Your task to perform on an android device: Go to battery settings Image 0: 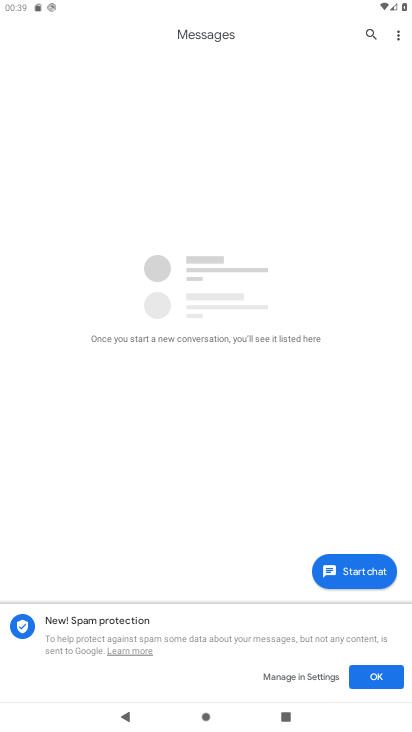
Step 0: press home button
Your task to perform on an android device: Go to battery settings Image 1: 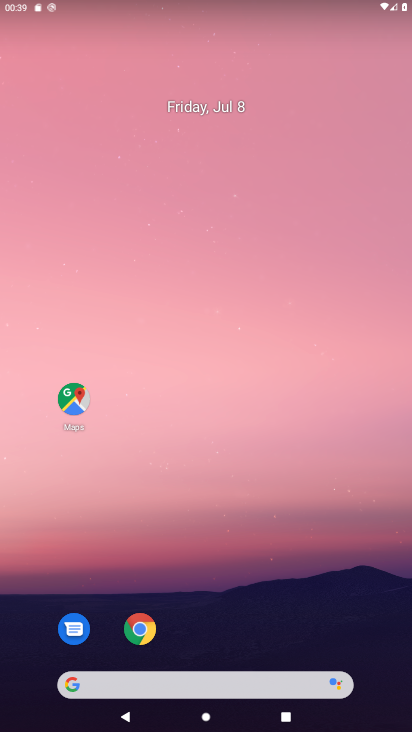
Step 1: drag from (251, 610) to (246, 4)
Your task to perform on an android device: Go to battery settings Image 2: 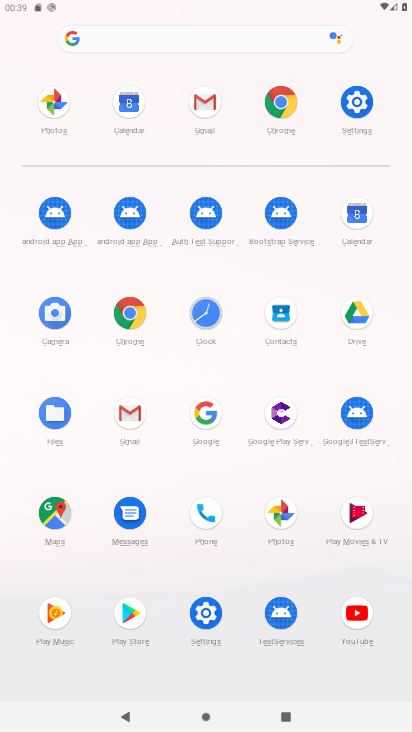
Step 2: click (358, 98)
Your task to perform on an android device: Go to battery settings Image 3: 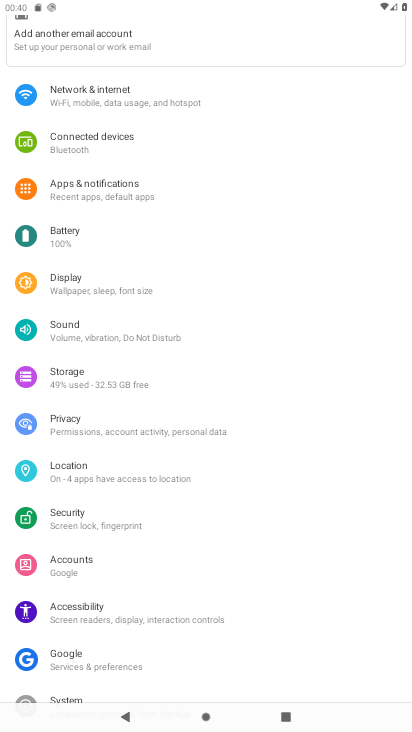
Step 3: click (68, 225)
Your task to perform on an android device: Go to battery settings Image 4: 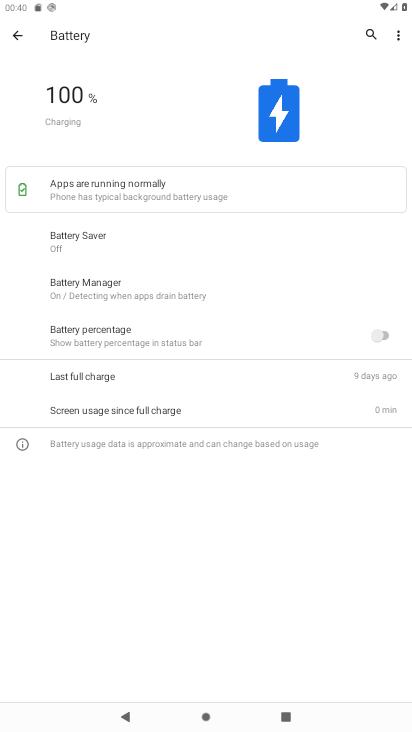
Step 4: task complete